Your task to perform on an android device: turn vacation reply on in the gmail app Image 0: 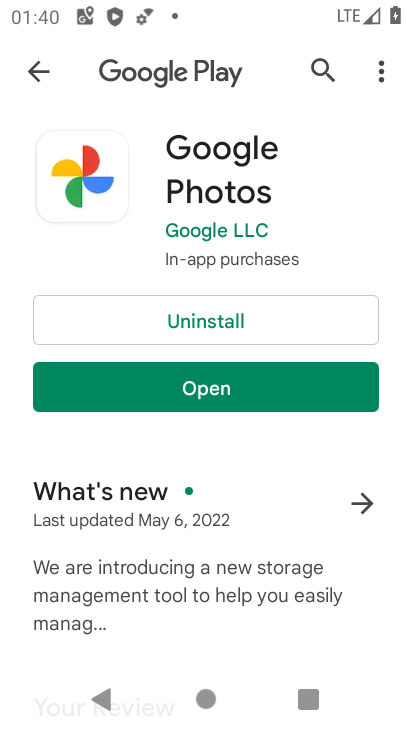
Step 0: press home button
Your task to perform on an android device: turn vacation reply on in the gmail app Image 1: 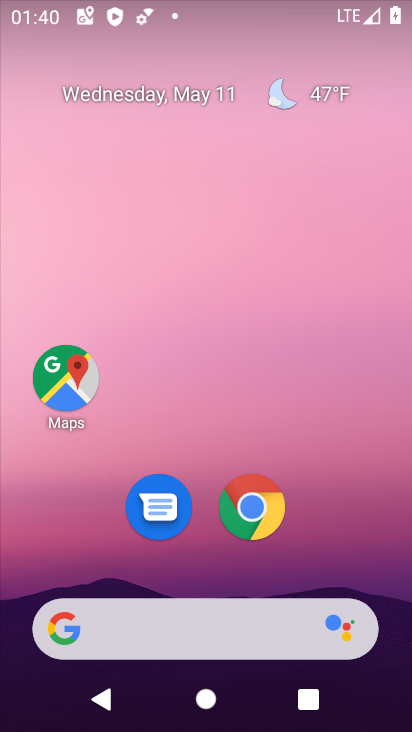
Step 1: drag from (327, 549) to (195, 111)
Your task to perform on an android device: turn vacation reply on in the gmail app Image 2: 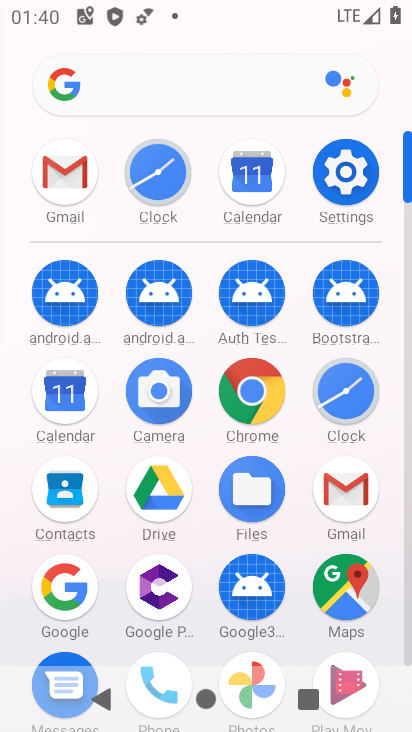
Step 2: click (57, 168)
Your task to perform on an android device: turn vacation reply on in the gmail app Image 3: 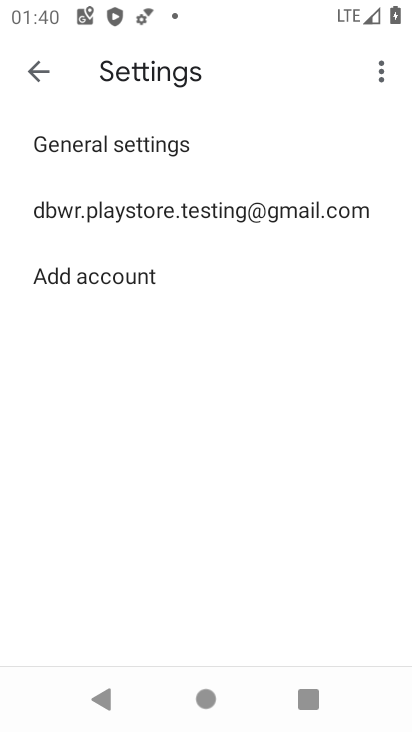
Step 3: click (91, 207)
Your task to perform on an android device: turn vacation reply on in the gmail app Image 4: 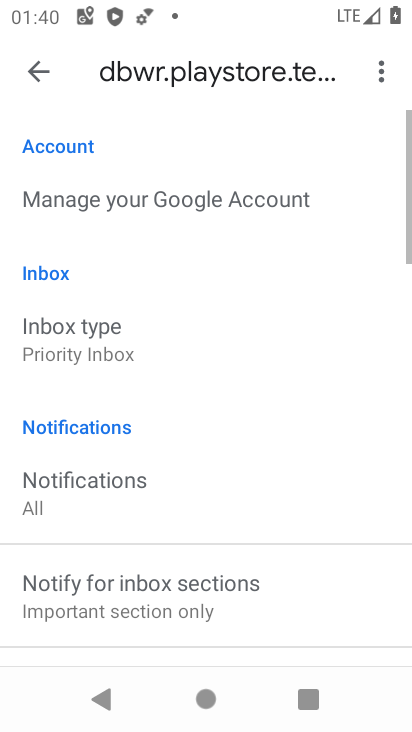
Step 4: drag from (207, 488) to (165, 12)
Your task to perform on an android device: turn vacation reply on in the gmail app Image 5: 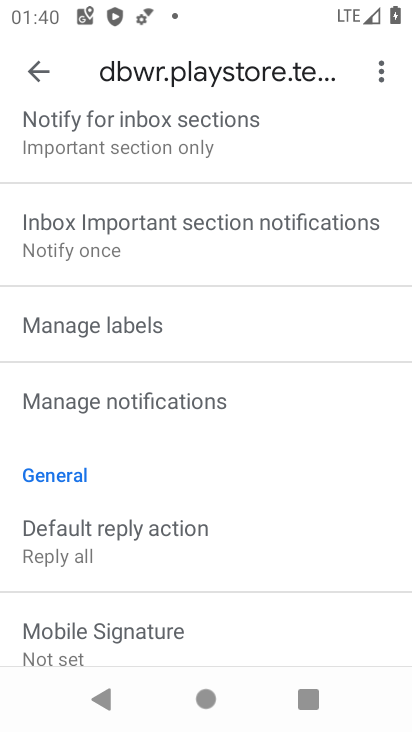
Step 5: drag from (247, 551) to (181, 216)
Your task to perform on an android device: turn vacation reply on in the gmail app Image 6: 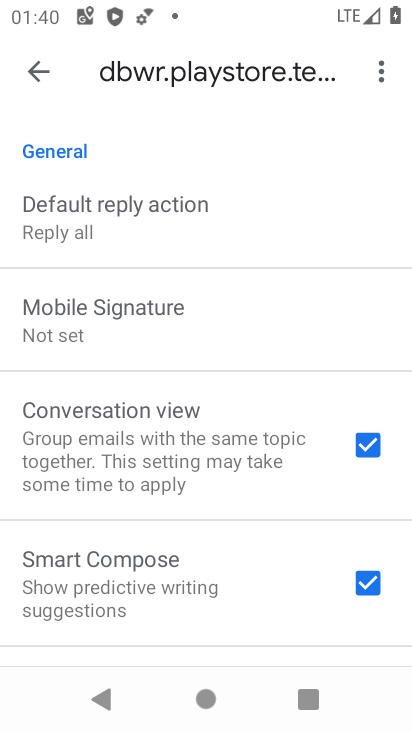
Step 6: drag from (239, 490) to (181, 224)
Your task to perform on an android device: turn vacation reply on in the gmail app Image 7: 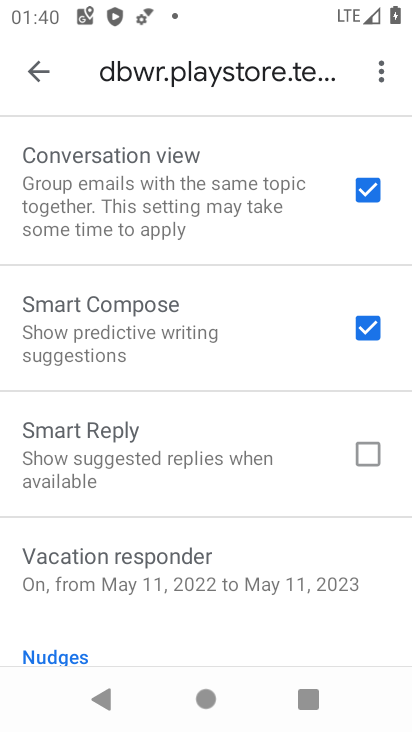
Step 7: drag from (265, 523) to (197, 244)
Your task to perform on an android device: turn vacation reply on in the gmail app Image 8: 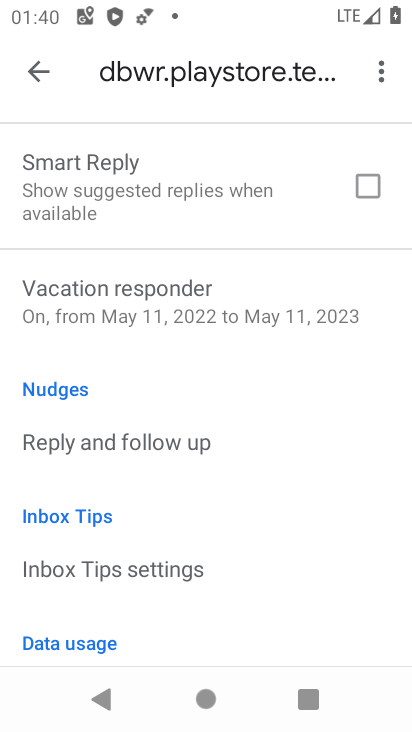
Step 8: click (131, 297)
Your task to perform on an android device: turn vacation reply on in the gmail app Image 9: 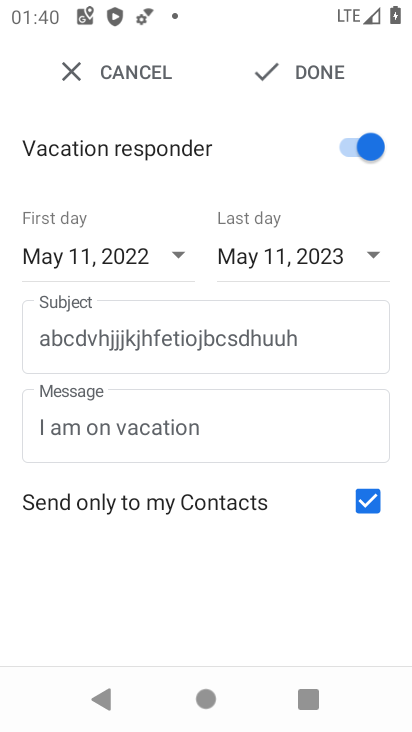
Step 9: task complete